Your task to perform on an android device: Open the phone app and click the voicemail tab. Image 0: 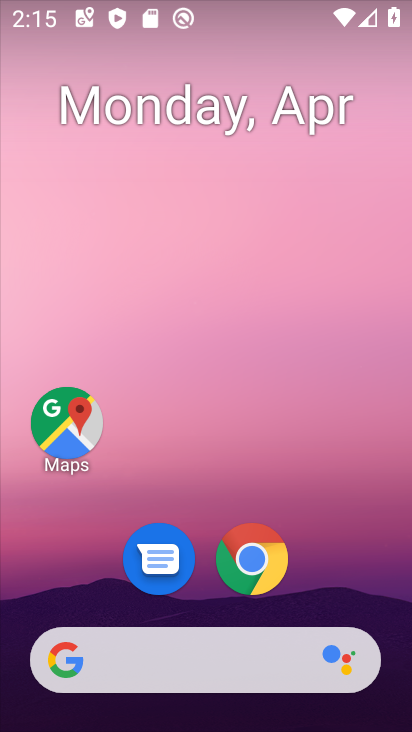
Step 0: drag from (317, 505) to (125, 68)
Your task to perform on an android device: Open the phone app and click the voicemail tab. Image 1: 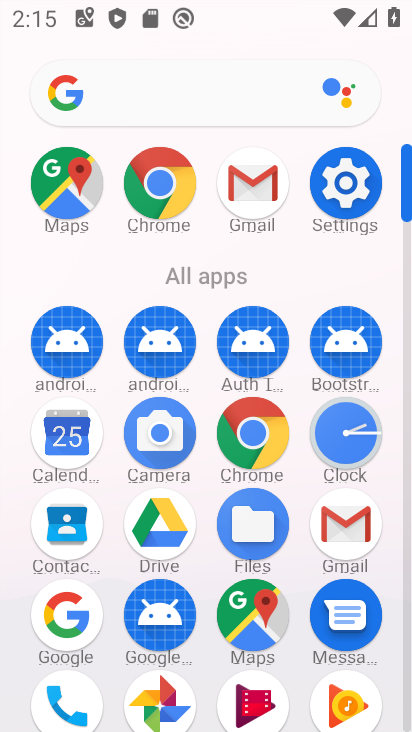
Step 1: drag from (112, 488) to (115, 340)
Your task to perform on an android device: Open the phone app and click the voicemail tab. Image 2: 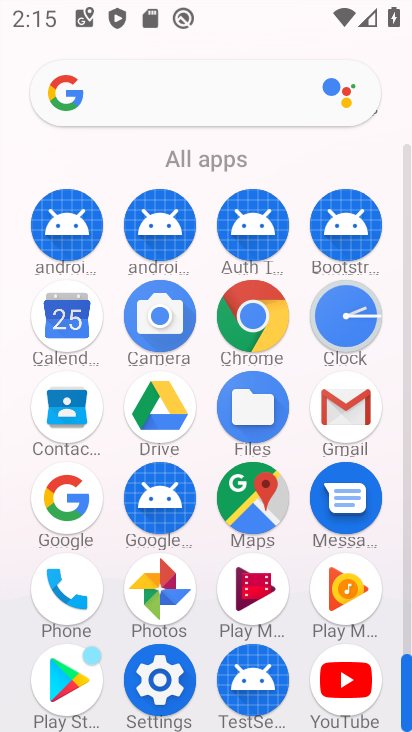
Step 2: click (82, 592)
Your task to perform on an android device: Open the phone app and click the voicemail tab. Image 3: 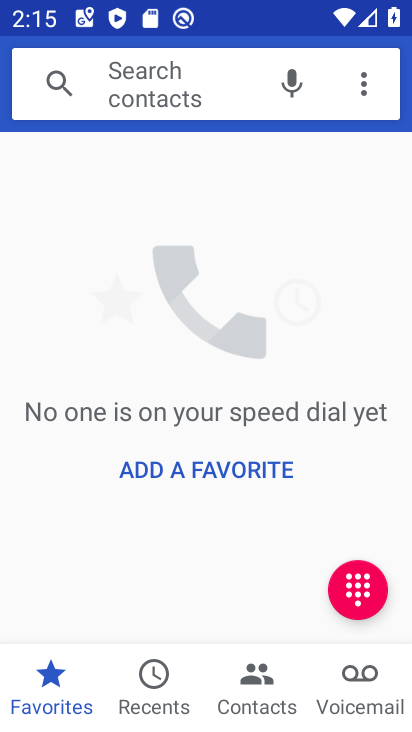
Step 3: click (363, 658)
Your task to perform on an android device: Open the phone app and click the voicemail tab. Image 4: 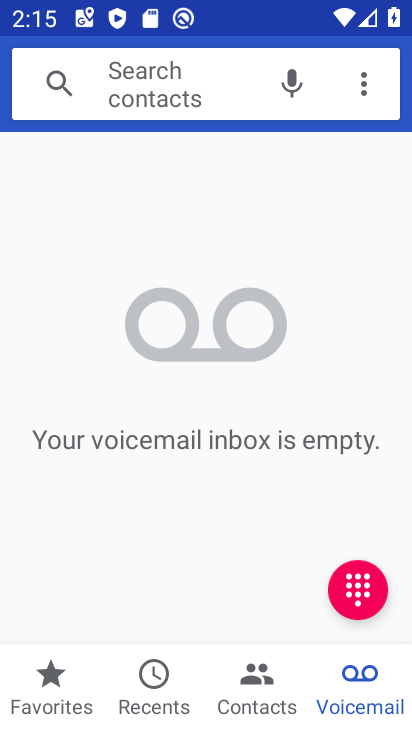
Step 4: task complete